Your task to perform on an android device: What's on my calendar tomorrow? Image 0: 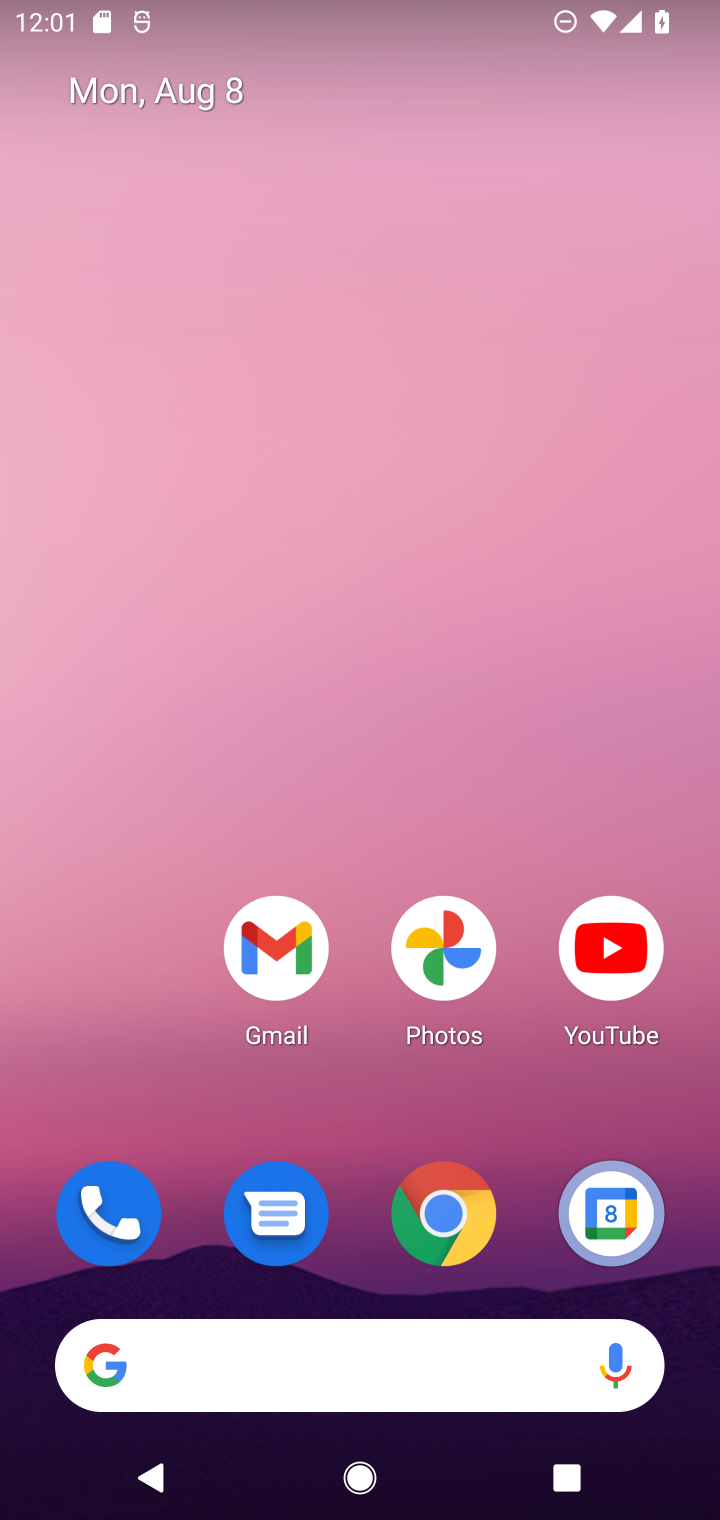
Step 0: press home button
Your task to perform on an android device: What's on my calendar tomorrow? Image 1: 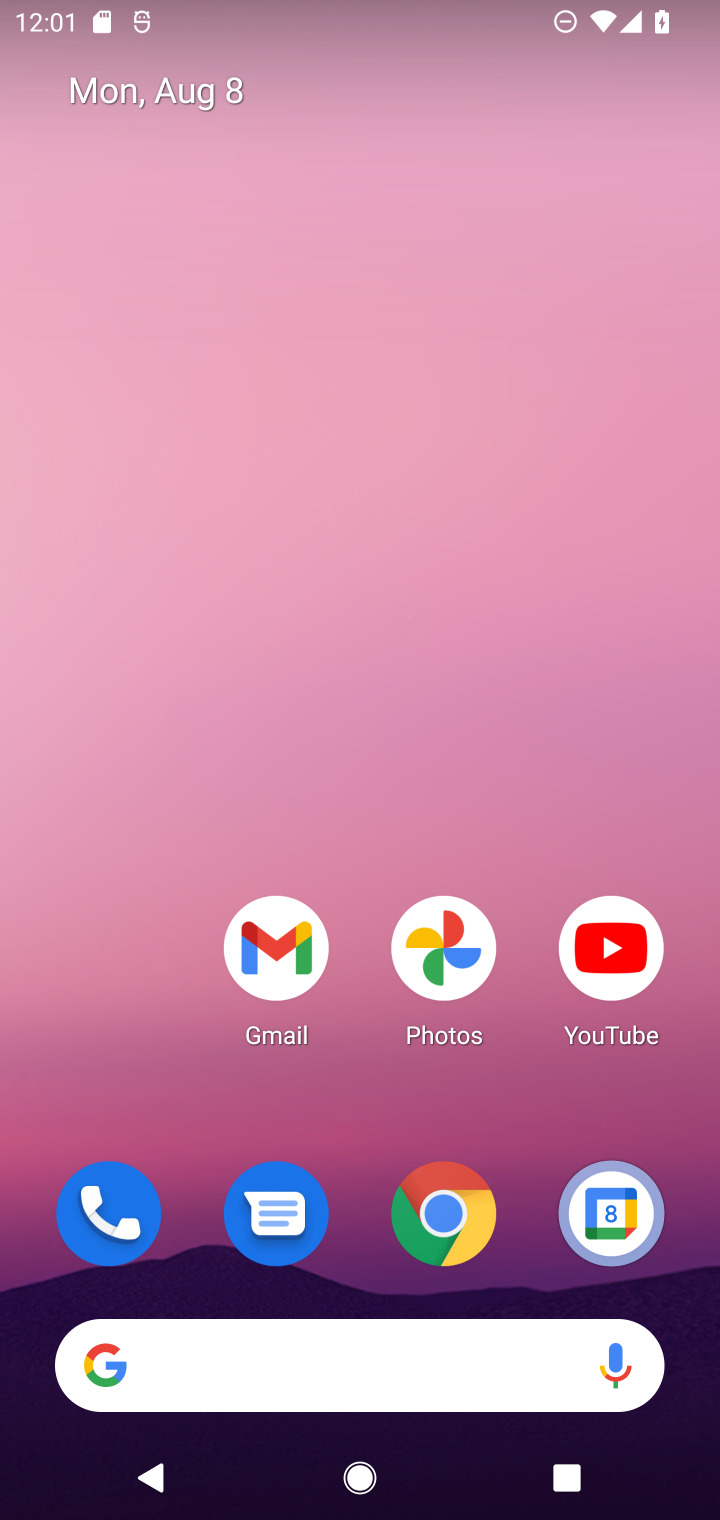
Step 1: drag from (374, 1125) to (344, 2)
Your task to perform on an android device: What's on my calendar tomorrow? Image 2: 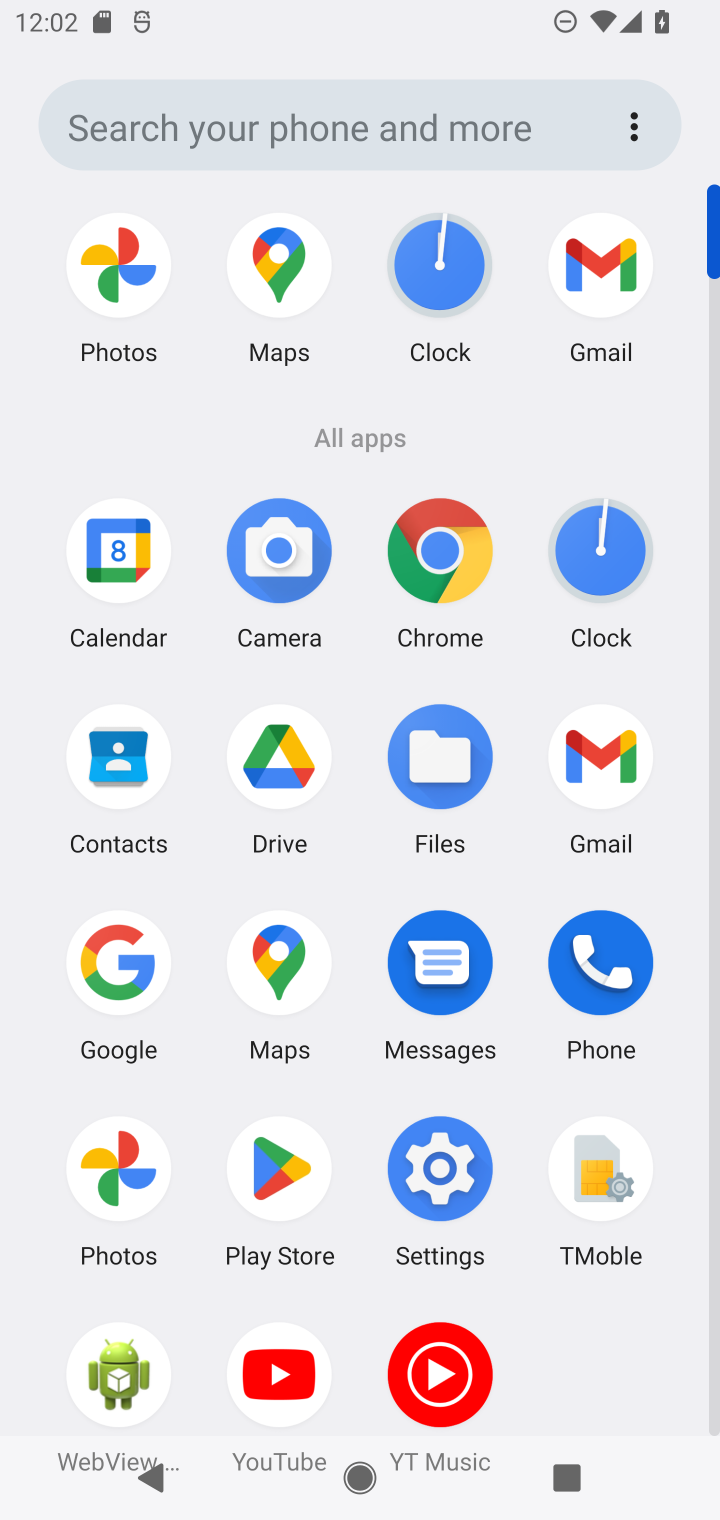
Step 2: click (102, 555)
Your task to perform on an android device: What's on my calendar tomorrow? Image 3: 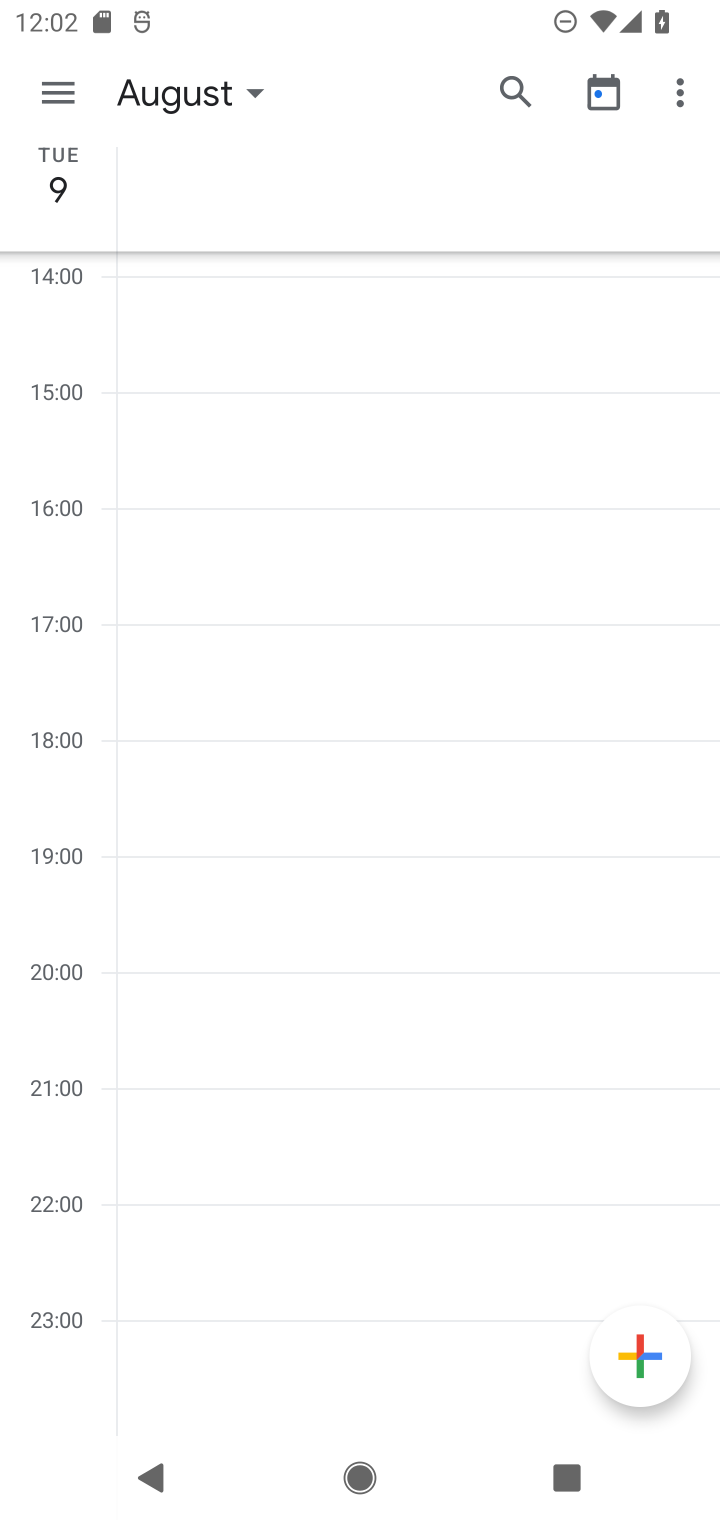
Step 3: click (248, 85)
Your task to perform on an android device: What's on my calendar tomorrow? Image 4: 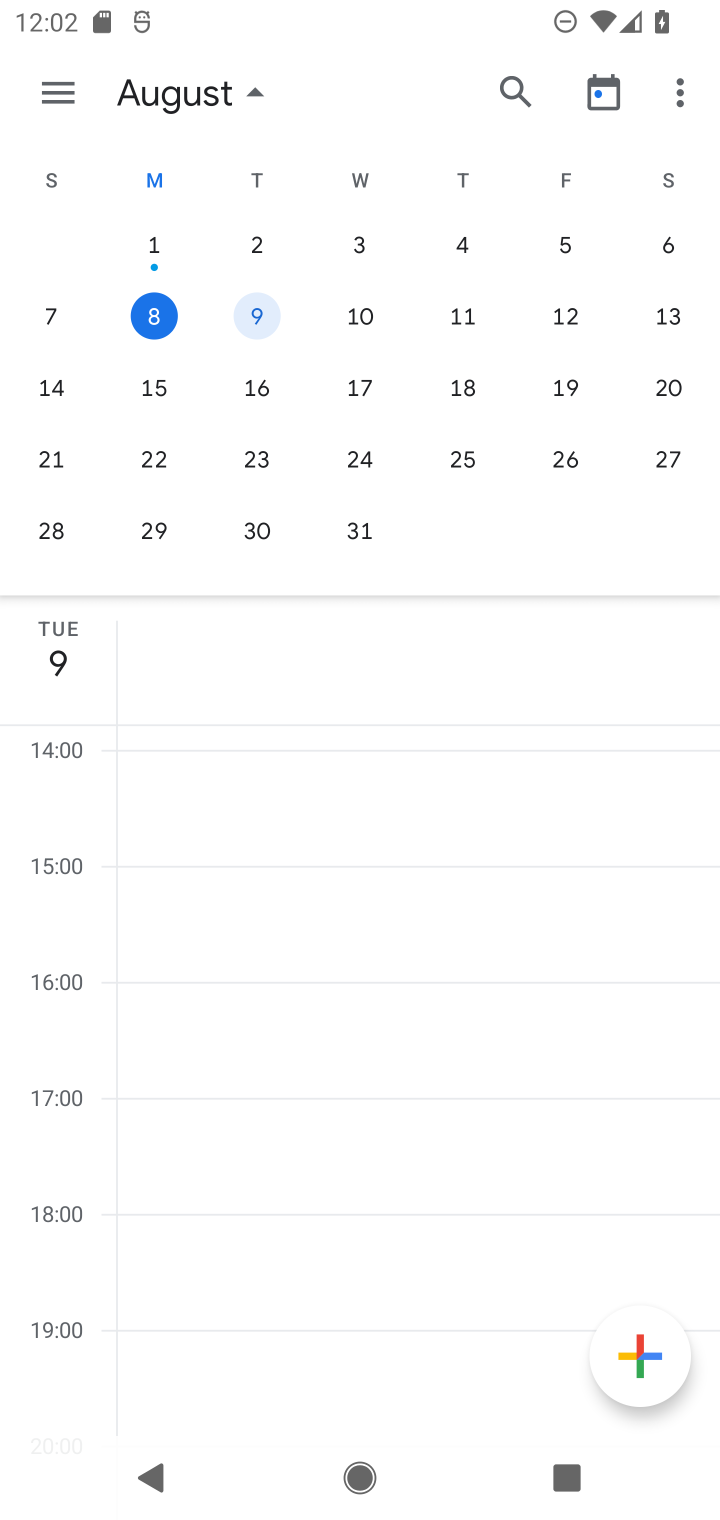
Step 4: click (265, 327)
Your task to perform on an android device: What's on my calendar tomorrow? Image 5: 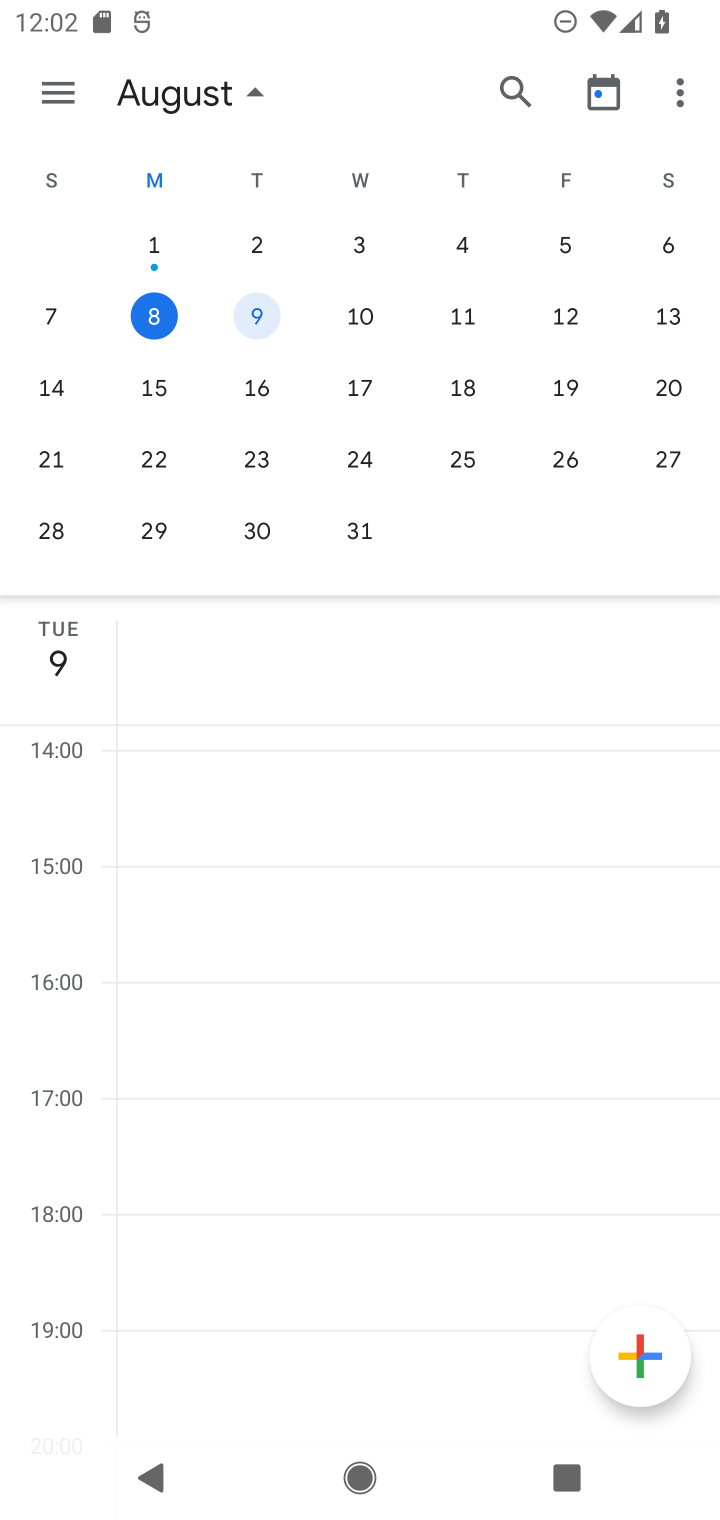
Step 5: click (240, 77)
Your task to perform on an android device: What's on my calendar tomorrow? Image 6: 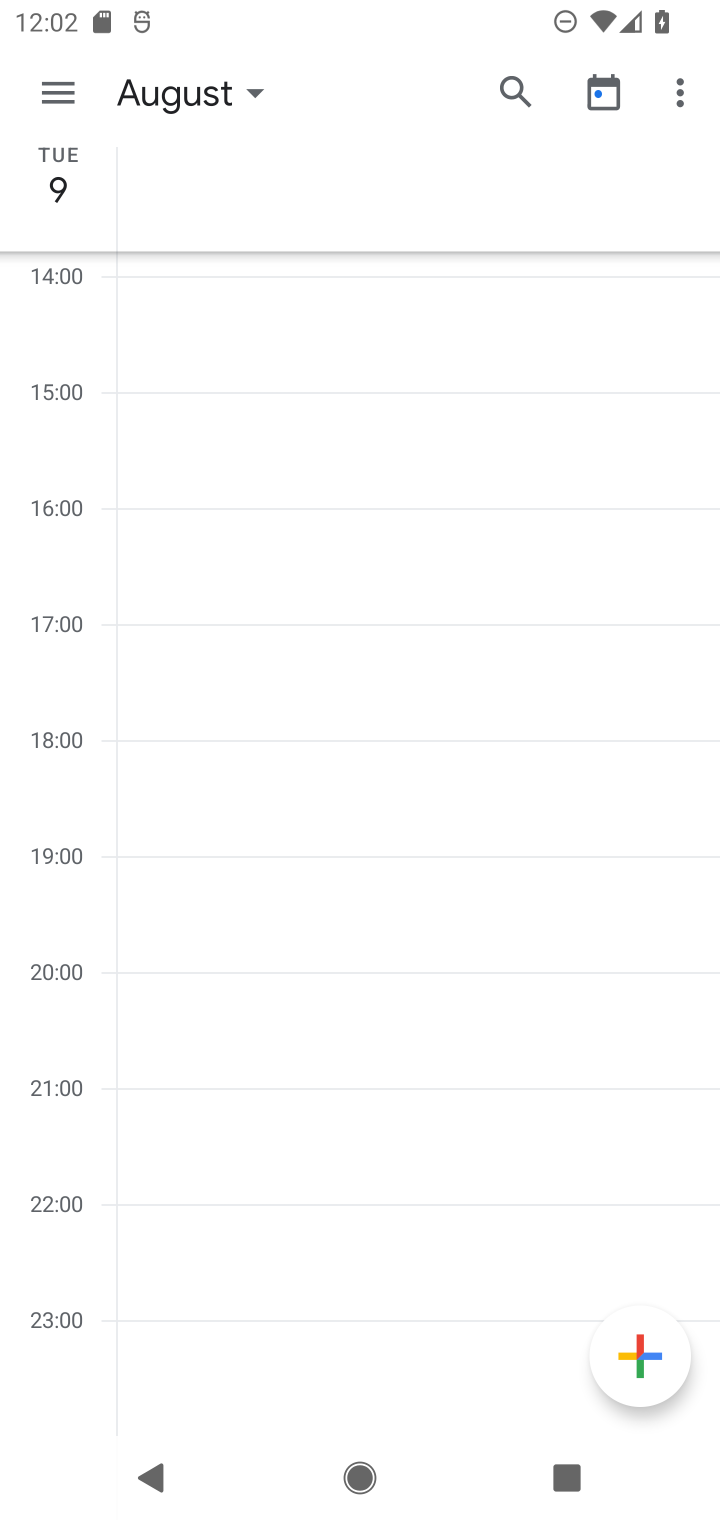
Step 6: task complete